Your task to perform on an android device: toggle data saver in the chrome app Image 0: 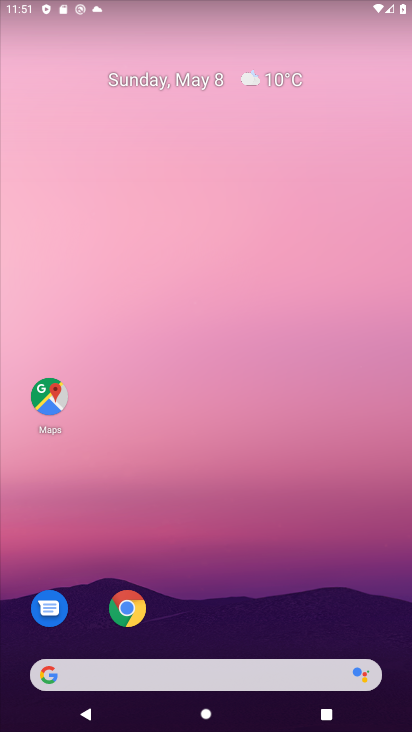
Step 0: drag from (280, 534) to (232, 165)
Your task to perform on an android device: toggle data saver in the chrome app Image 1: 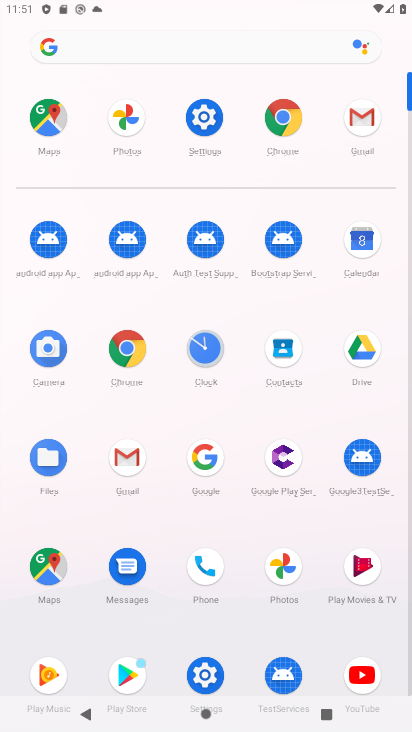
Step 1: click (289, 134)
Your task to perform on an android device: toggle data saver in the chrome app Image 2: 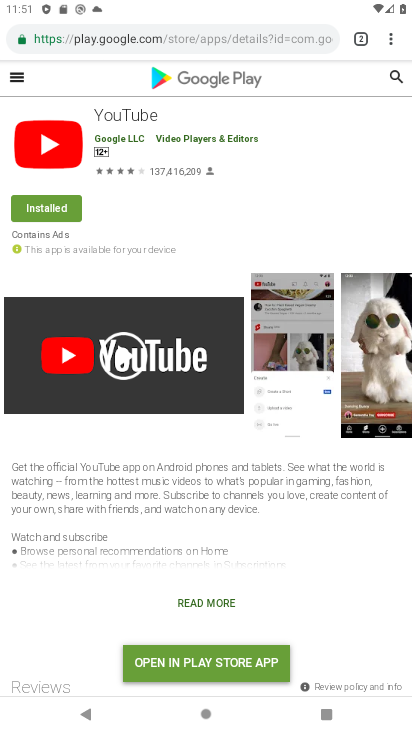
Step 2: click (392, 45)
Your task to perform on an android device: toggle data saver in the chrome app Image 3: 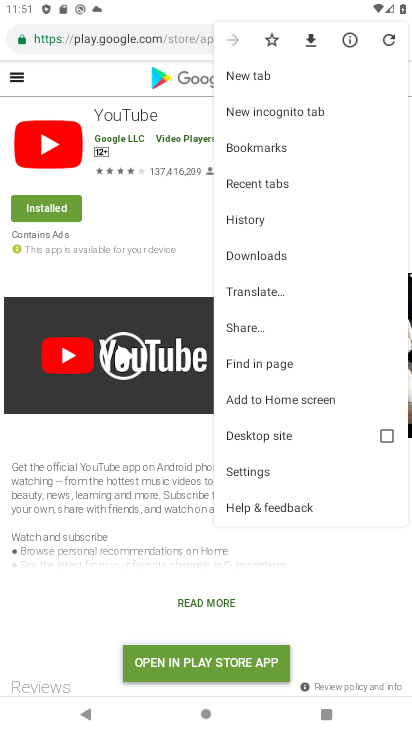
Step 3: click (289, 463)
Your task to perform on an android device: toggle data saver in the chrome app Image 4: 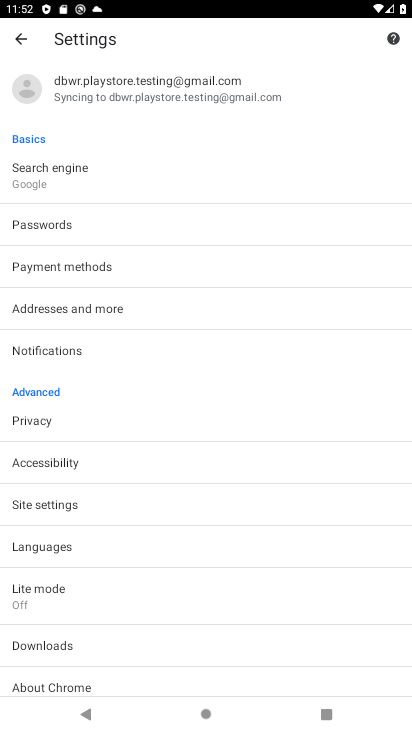
Step 4: click (154, 593)
Your task to perform on an android device: toggle data saver in the chrome app Image 5: 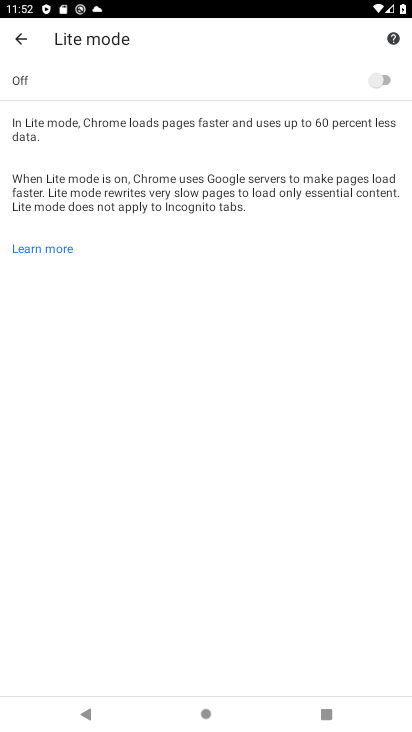
Step 5: click (368, 87)
Your task to perform on an android device: toggle data saver in the chrome app Image 6: 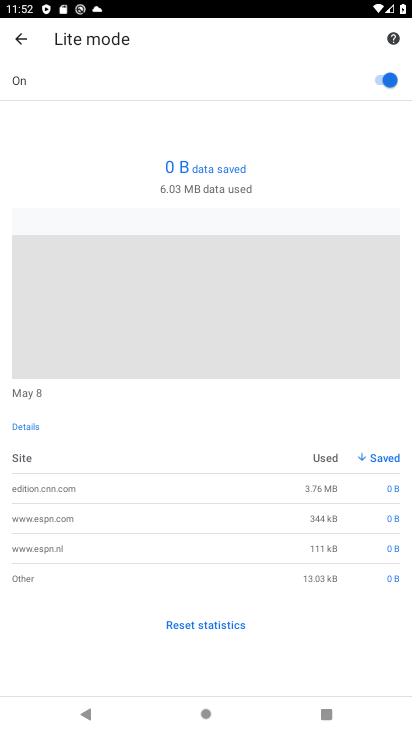
Step 6: task complete